Your task to perform on an android device: toggle sleep mode Image 0: 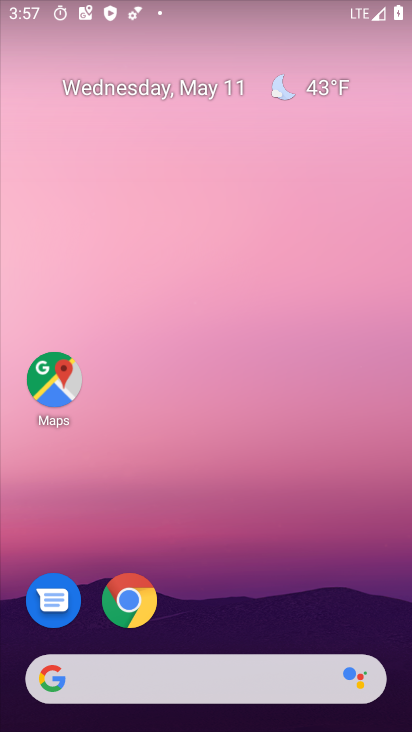
Step 0: drag from (237, 264) to (237, 20)
Your task to perform on an android device: toggle sleep mode Image 1: 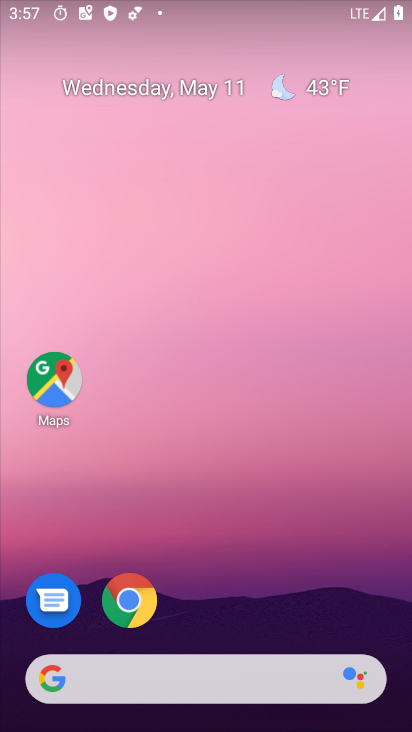
Step 1: drag from (234, 631) to (261, 11)
Your task to perform on an android device: toggle sleep mode Image 2: 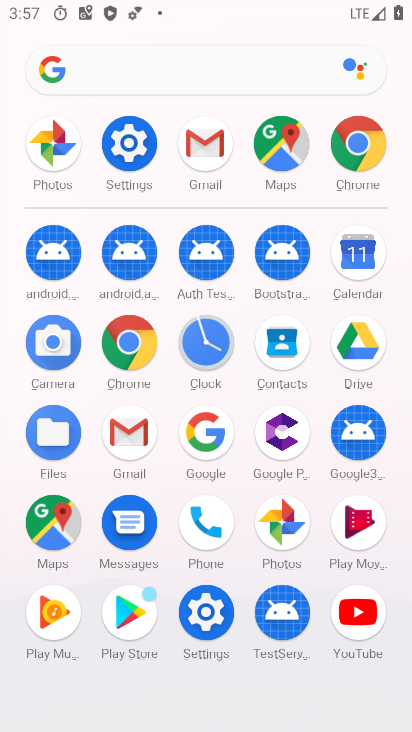
Step 2: click (134, 147)
Your task to perform on an android device: toggle sleep mode Image 3: 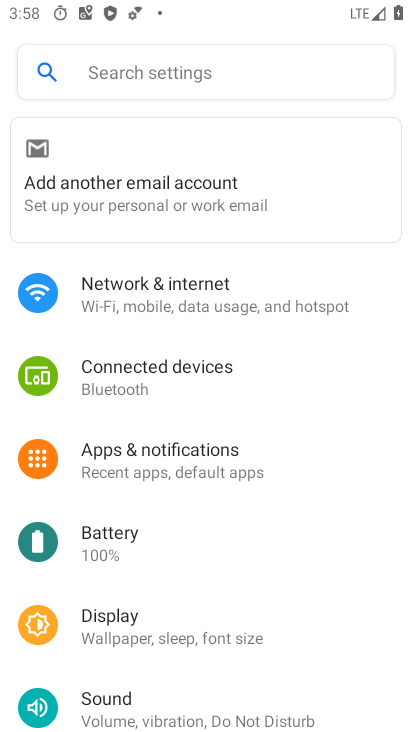
Step 3: click (117, 620)
Your task to perform on an android device: toggle sleep mode Image 4: 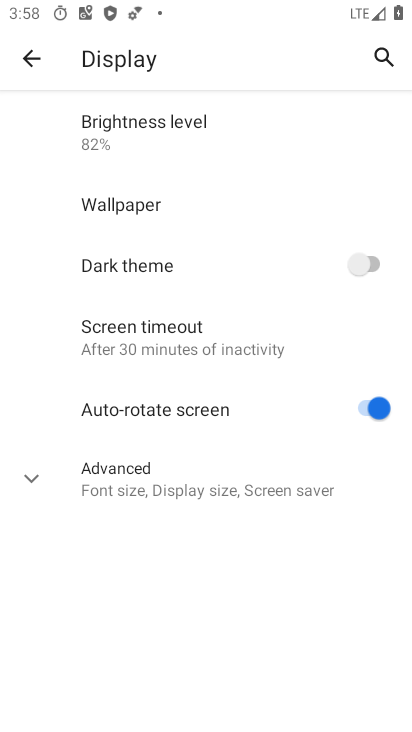
Step 4: click (20, 480)
Your task to perform on an android device: toggle sleep mode Image 5: 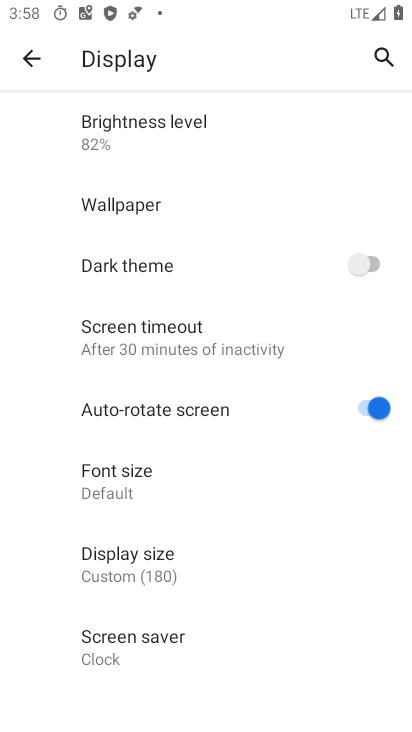
Step 5: task complete